Your task to perform on an android device: Empty the shopping cart on amazon.com. Add "asus zenbook" to the cart on amazon.com Image 0: 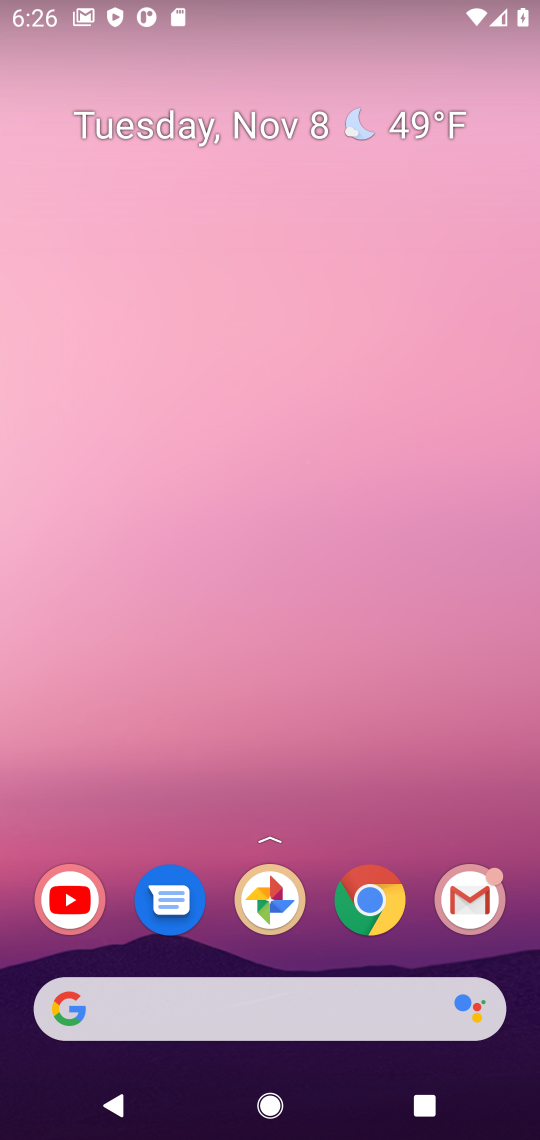
Step 0: click (382, 918)
Your task to perform on an android device: Empty the shopping cart on amazon.com. Add "asus zenbook" to the cart on amazon.com Image 1: 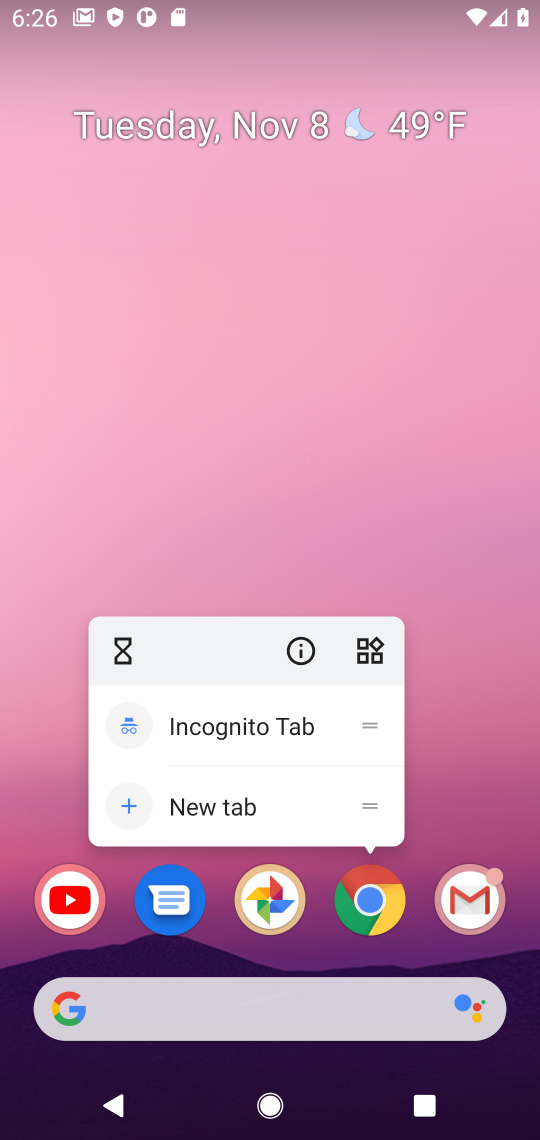
Step 1: click (395, 918)
Your task to perform on an android device: Empty the shopping cart on amazon.com. Add "asus zenbook" to the cart on amazon.com Image 2: 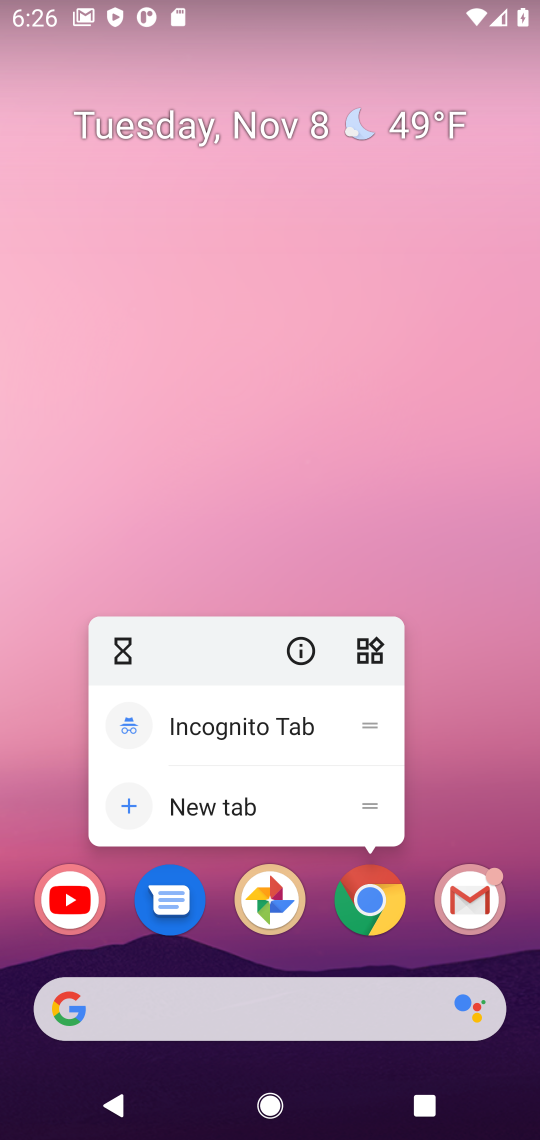
Step 2: click (375, 924)
Your task to perform on an android device: Empty the shopping cart on amazon.com. Add "asus zenbook" to the cart on amazon.com Image 3: 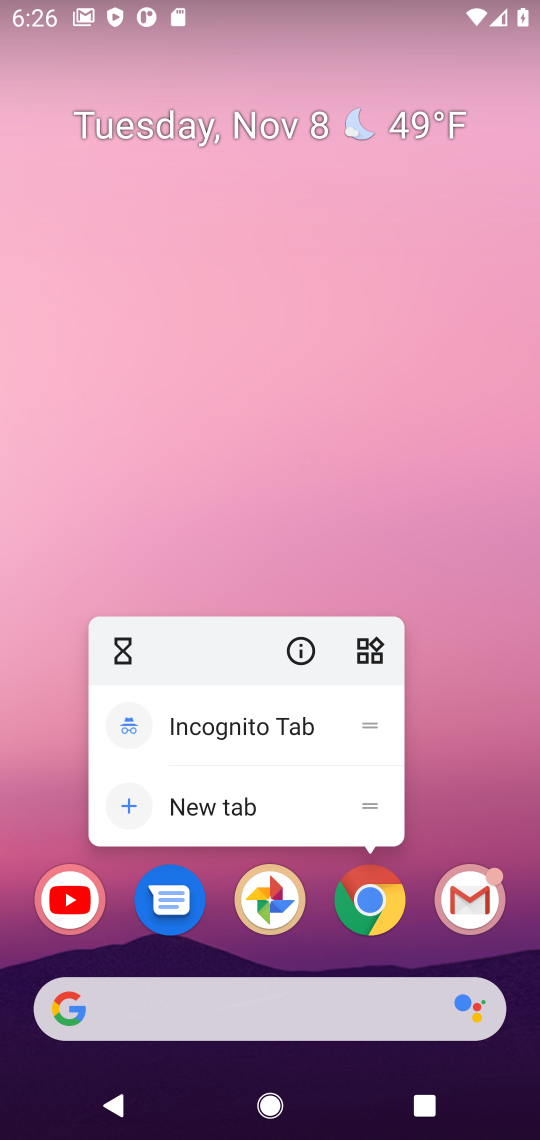
Step 3: click (373, 907)
Your task to perform on an android device: Empty the shopping cart on amazon.com. Add "asus zenbook" to the cart on amazon.com Image 4: 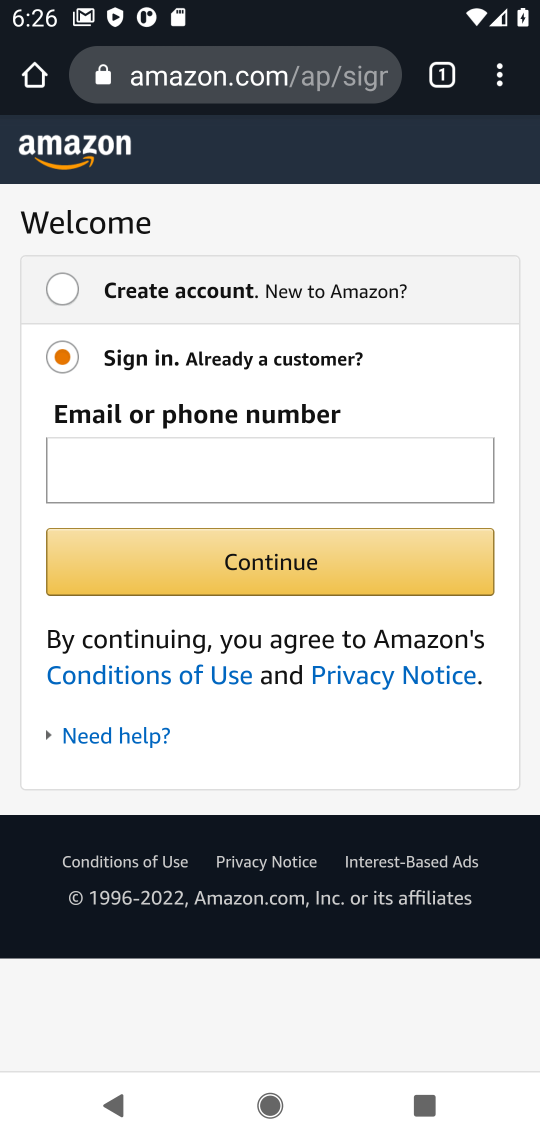
Step 4: click (312, 75)
Your task to perform on an android device: Empty the shopping cart on amazon.com. Add "asus zenbook" to the cart on amazon.com Image 5: 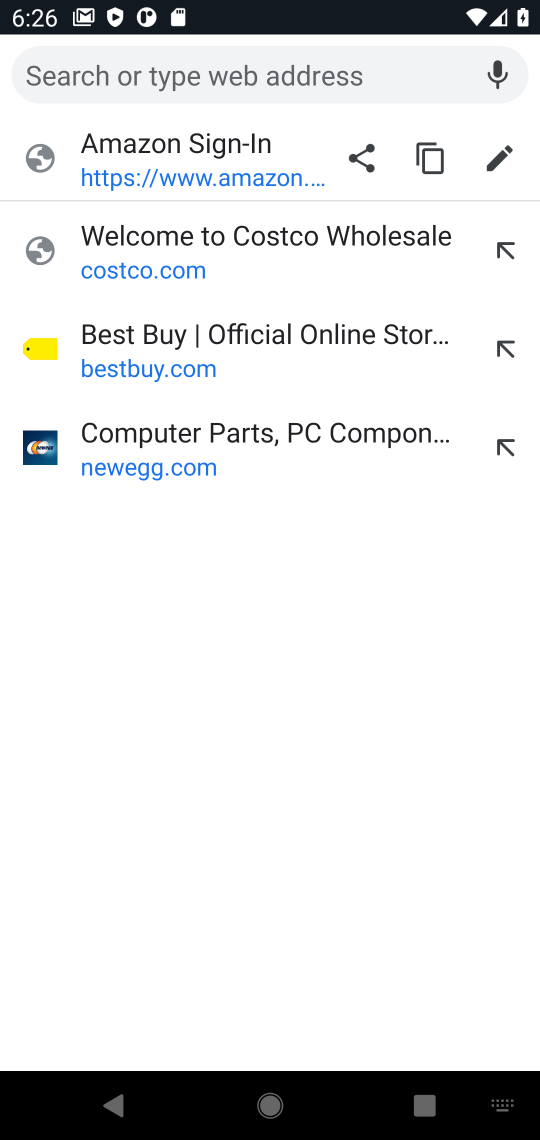
Step 5: type "amazon.com"
Your task to perform on an android device: Empty the shopping cart on amazon.com. Add "asus zenbook" to the cart on amazon.com Image 6: 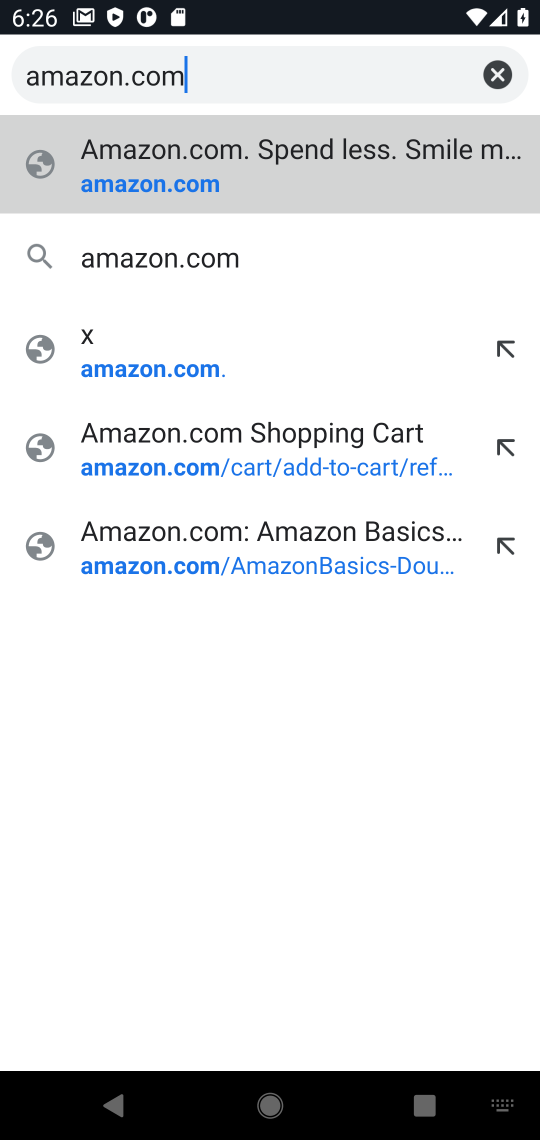
Step 6: press enter
Your task to perform on an android device: Empty the shopping cart on amazon.com. Add "asus zenbook" to the cart on amazon.com Image 7: 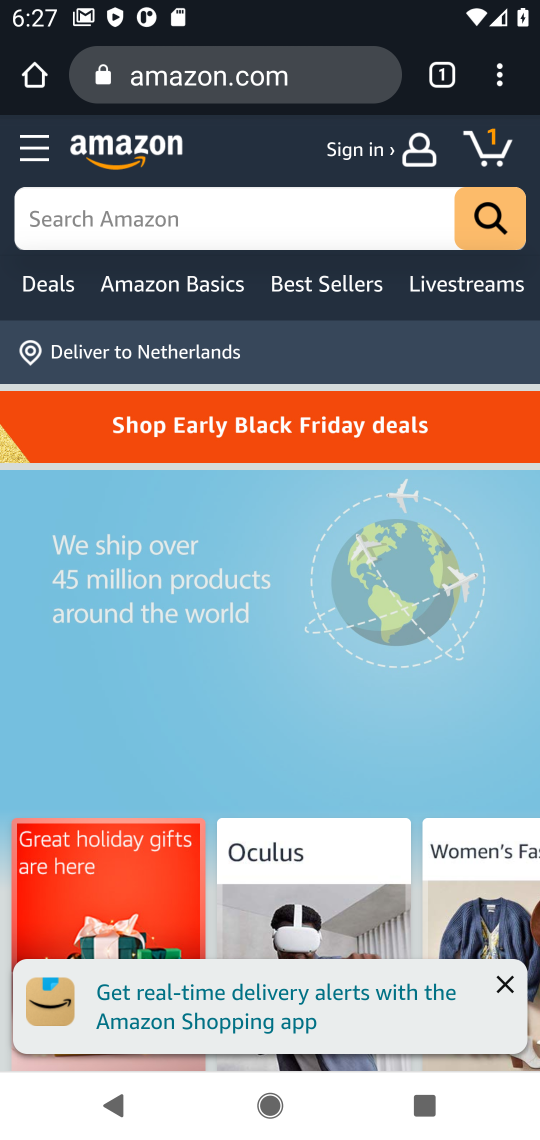
Step 7: click (503, 156)
Your task to perform on an android device: Empty the shopping cart on amazon.com. Add "asus zenbook" to the cart on amazon.com Image 8: 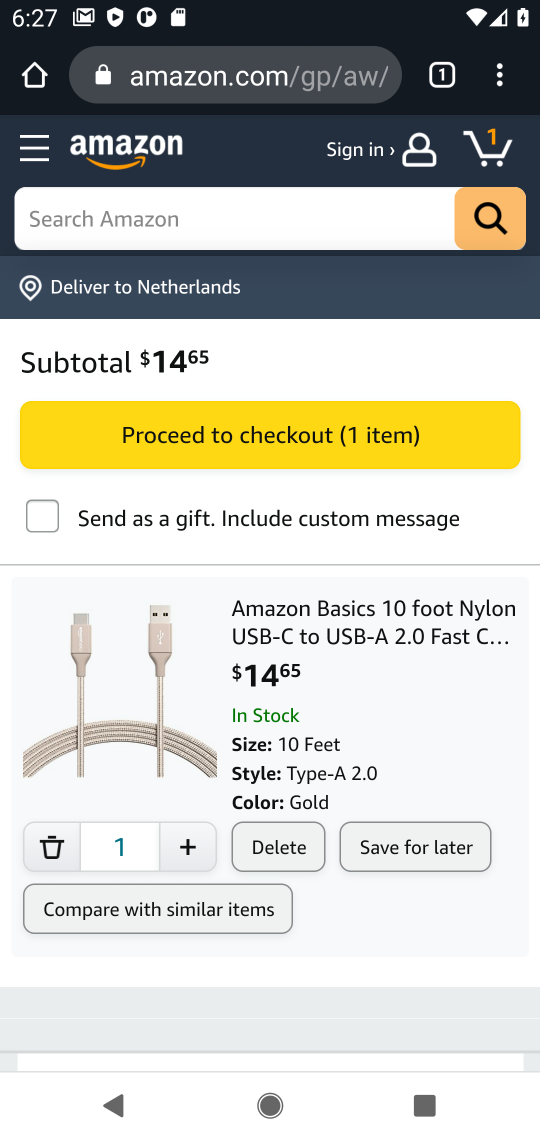
Step 8: click (41, 858)
Your task to perform on an android device: Empty the shopping cart on amazon.com. Add "asus zenbook" to the cart on amazon.com Image 9: 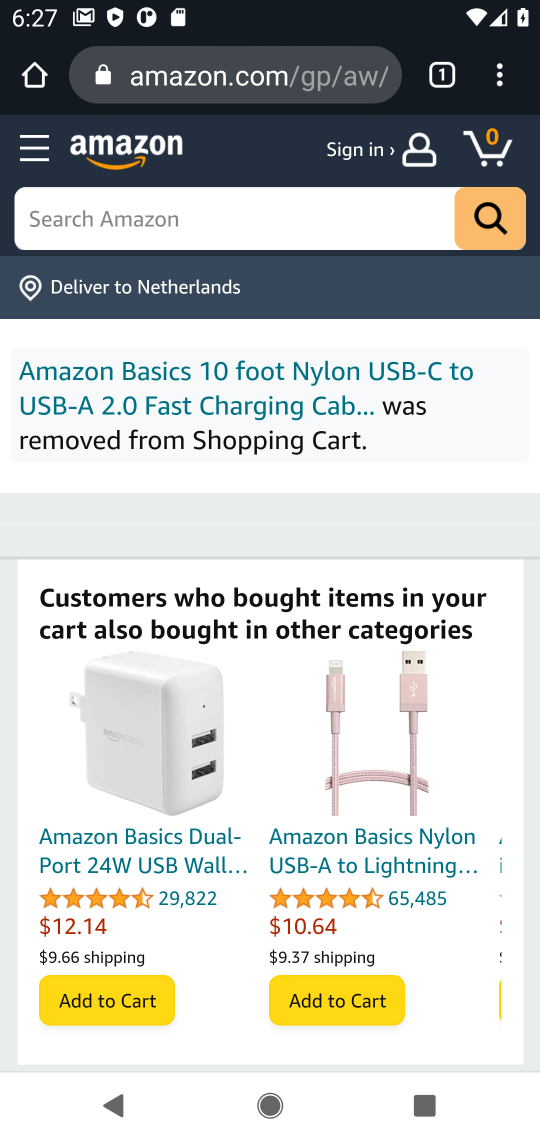
Step 9: click (191, 199)
Your task to perform on an android device: Empty the shopping cart on amazon.com. Add "asus zenbook" to the cart on amazon.com Image 10: 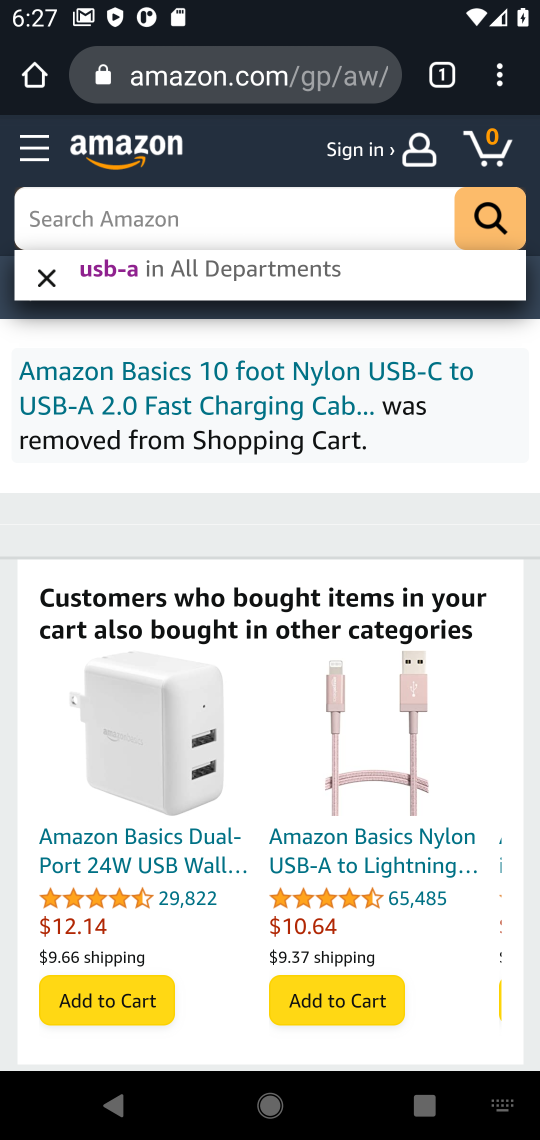
Step 10: type "asus zenbook"
Your task to perform on an android device: Empty the shopping cart on amazon.com. Add "asus zenbook" to the cart on amazon.com Image 11: 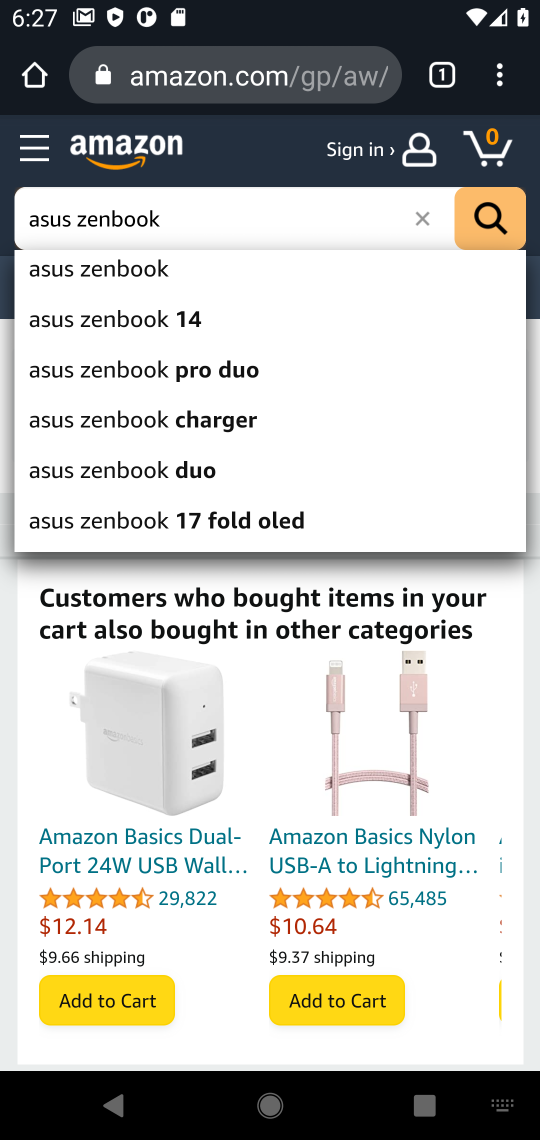
Step 11: click (504, 221)
Your task to perform on an android device: Empty the shopping cart on amazon.com. Add "asus zenbook" to the cart on amazon.com Image 12: 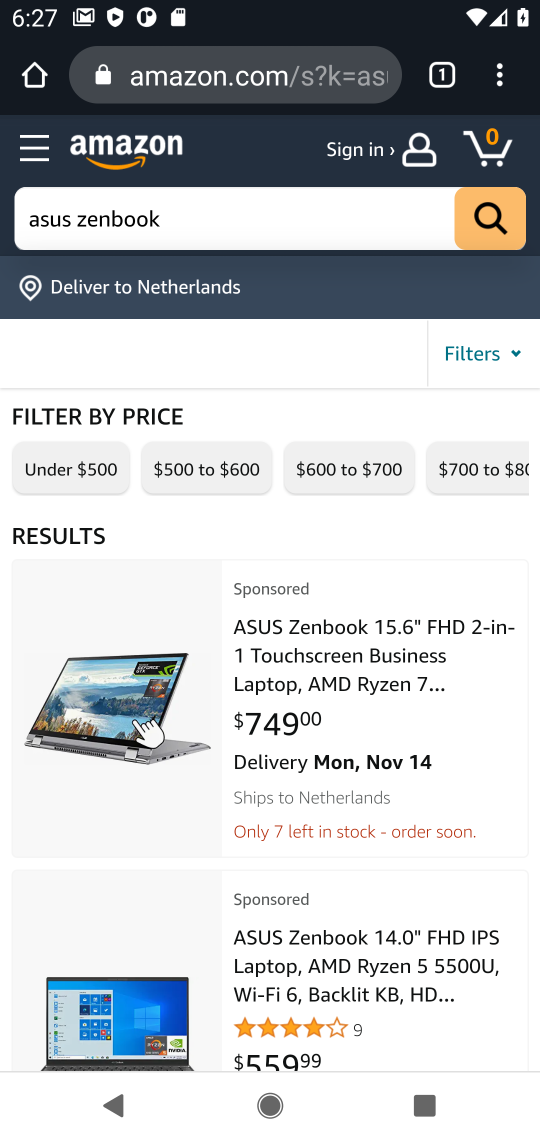
Step 12: click (406, 654)
Your task to perform on an android device: Empty the shopping cart on amazon.com. Add "asus zenbook" to the cart on amazon.com Image 13: 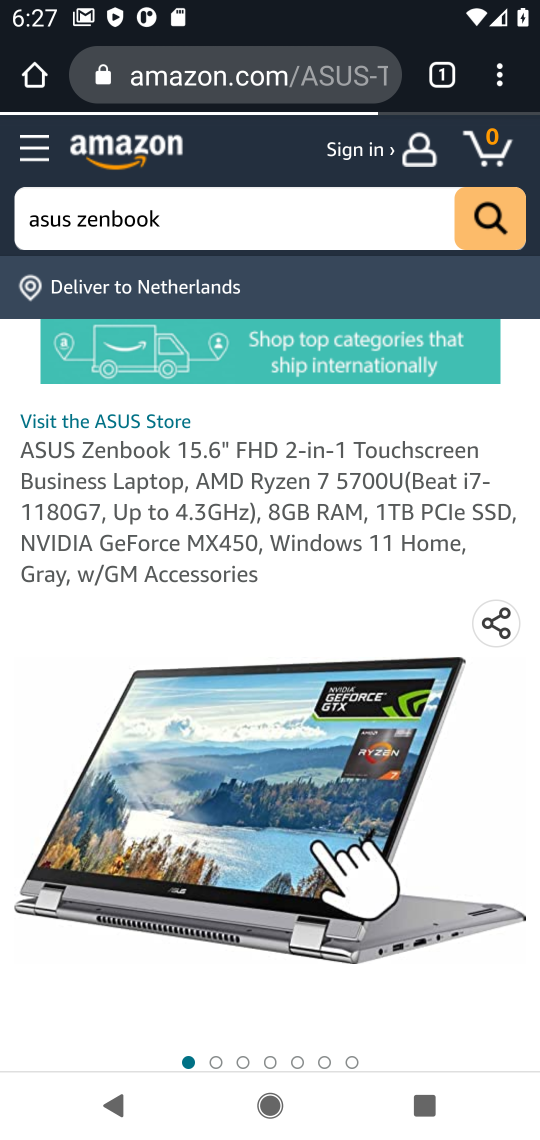
Step 13: drag from (344, 949) to (291, 470)
Your task to perform on an android device: Empty the shopping cart on amazon.com. Add "asus zenbook" to the cart on amazon.com Image 14: 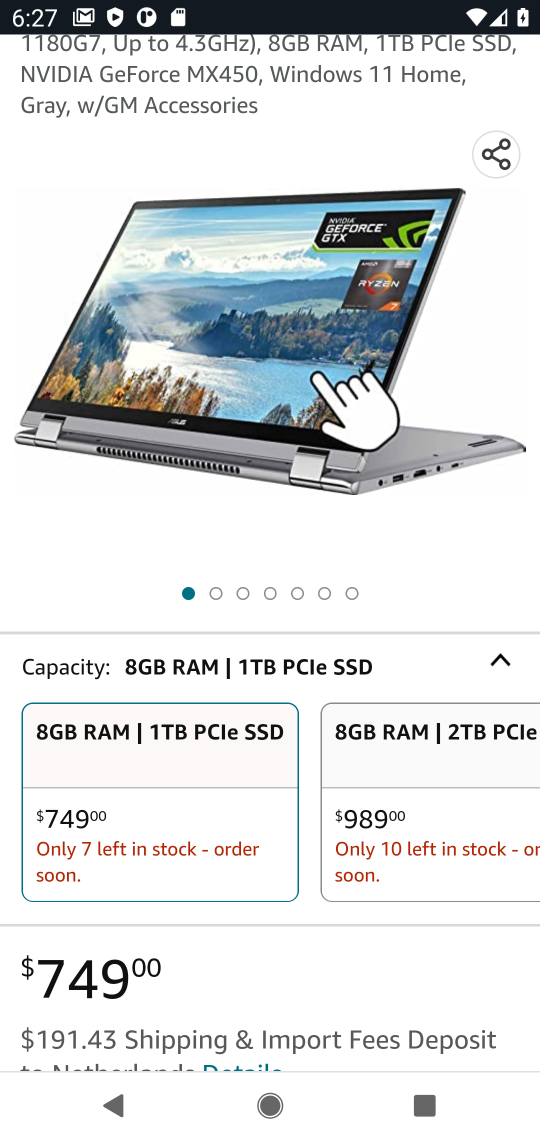
Step 14: drag from (226, 963) to (209, 746)
Your task to perform on an android device: Empty the shopping cart on amazon.com. Add "asus zenbook" to the cart on amazon.com Image 15: 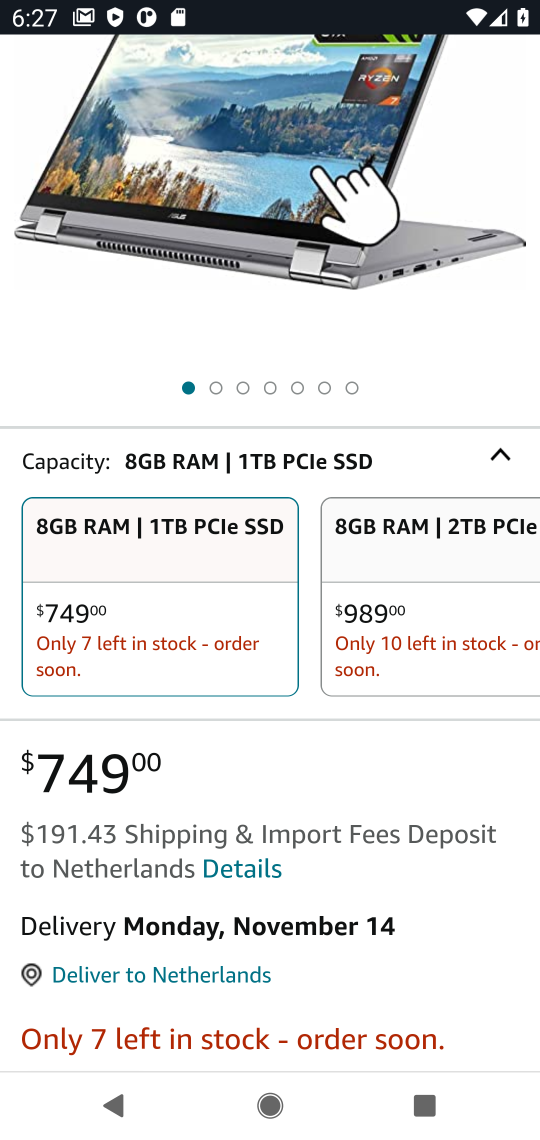
Step 15: click (209, 745)
Your task to perform on an android device: Empty the shopping cart on amazon.com. Add "asus zenbook" to the cart on amazon.com Image 16: 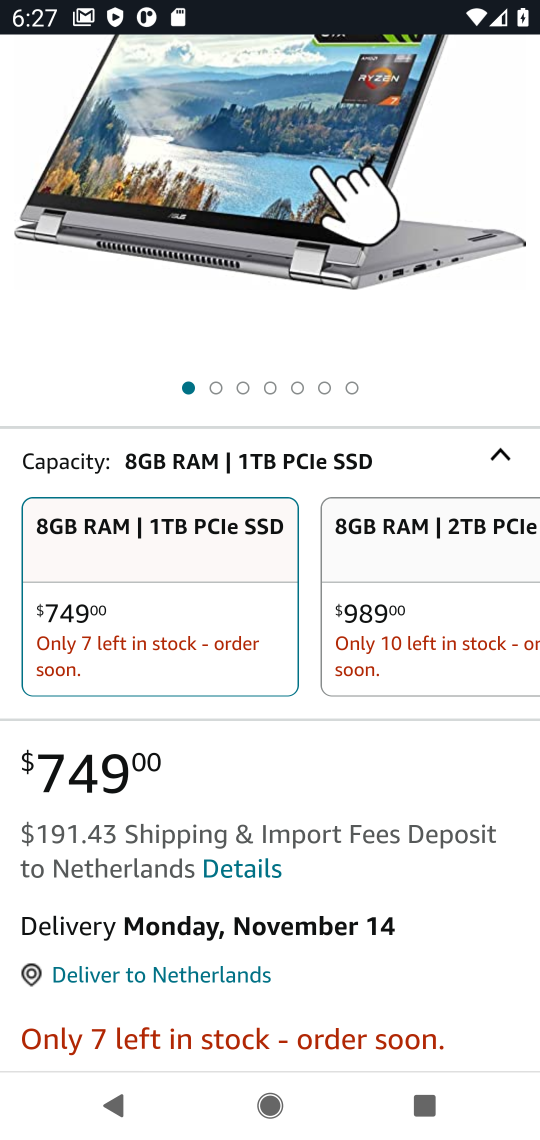
Step 16: click (211, 736)
Your task to perform on an android device: Empty the shopping cart on amazon.com. Add "asus zenbook" to the cart on amazon.com Image 17: 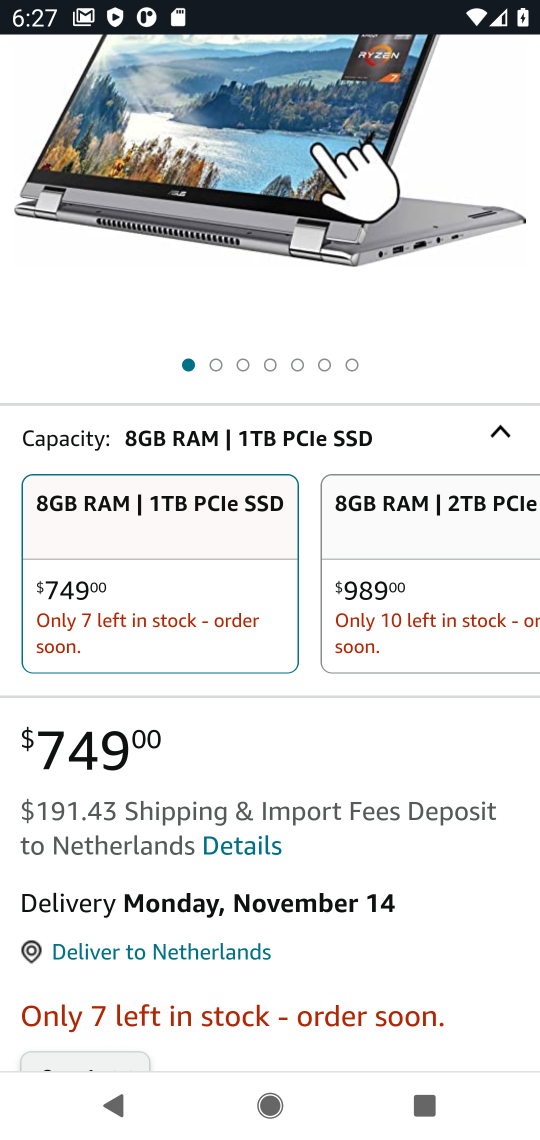
Step 17: drag from (419, 935) to (394, 820)
Your task to perform on an android device: Empty the shopping cart on amazon.com. Add "asus zenbook" to the cart on amazon.com Image 18: 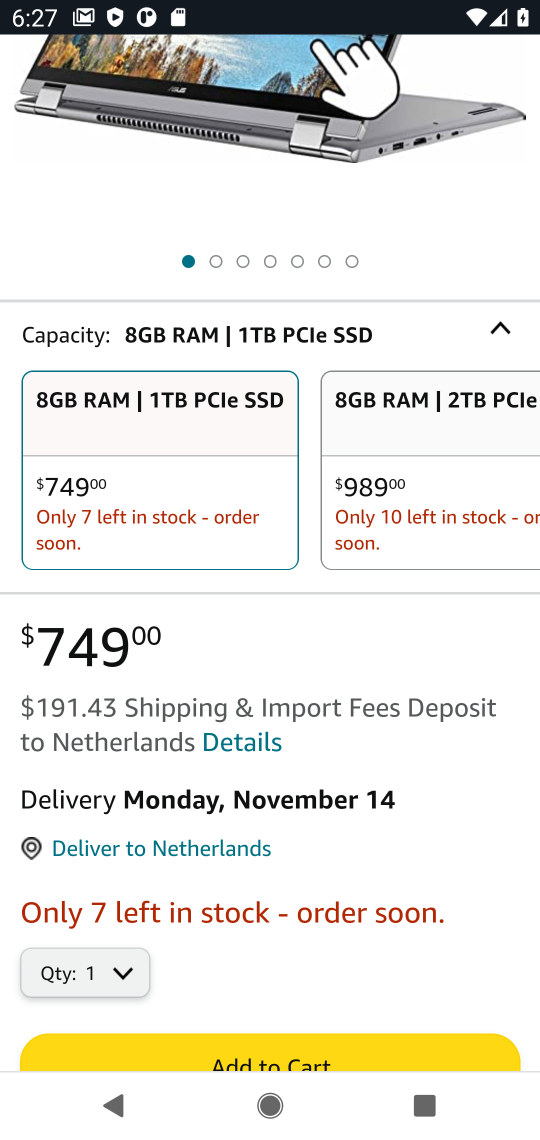
Step 18: drag from (394, 789) to (394, 682)
Your task to perform on an android device: Empty the shopping cart on amazon.com. Add "asus zenbook" to the cart on amazon.com Image 19: 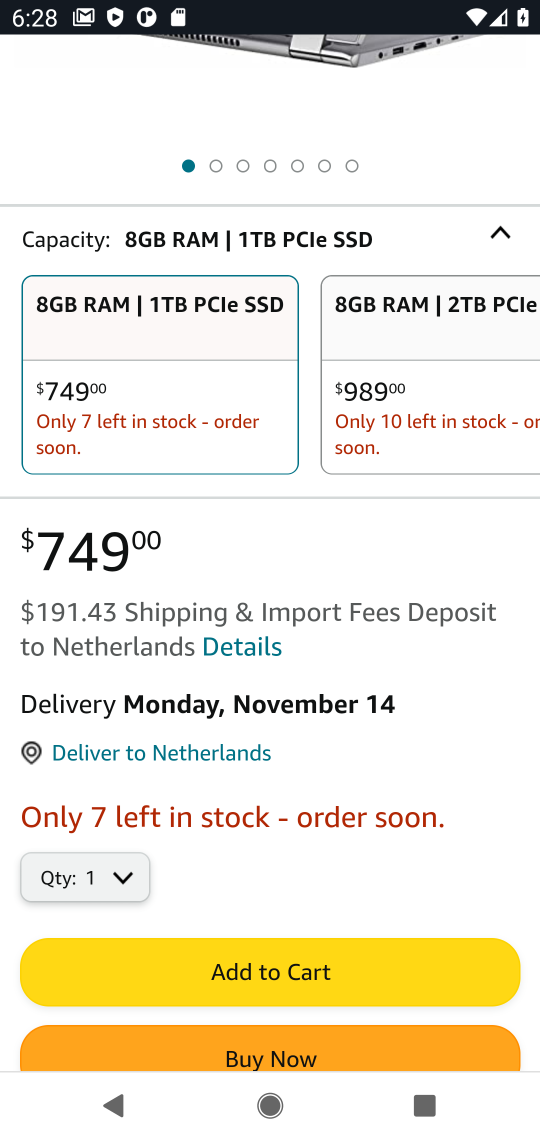
Step 19: click (329, 969)
Your task to perform on an android device: Empty the shopping cart on amazon.com. Add "asus zenbook" to the cart on amazon.com Image 20: 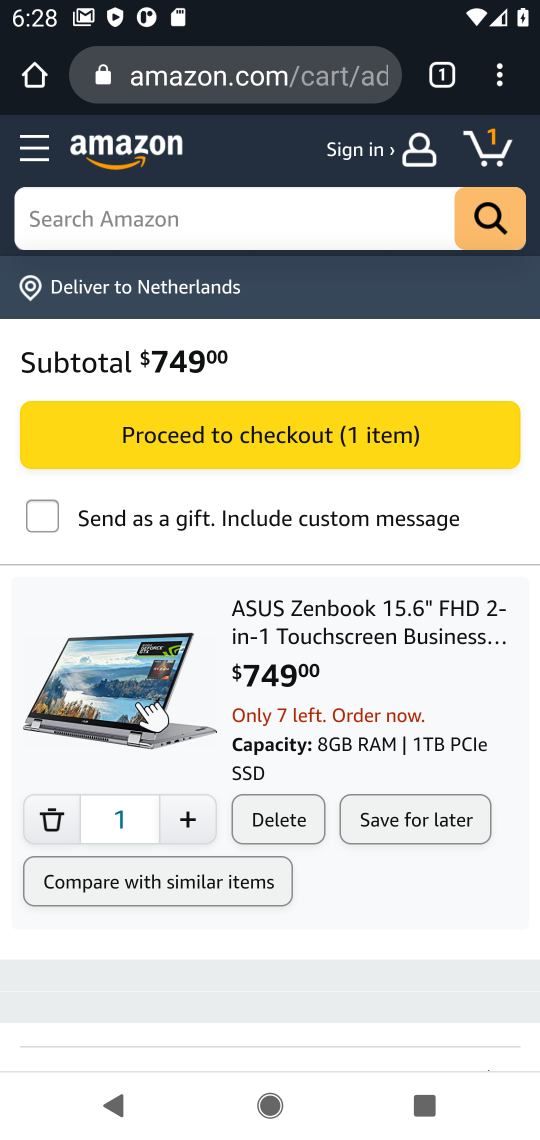
Step 20: task complete